Your task to perform on an android device: Search for Mexican restaurants on Maps Image 0: 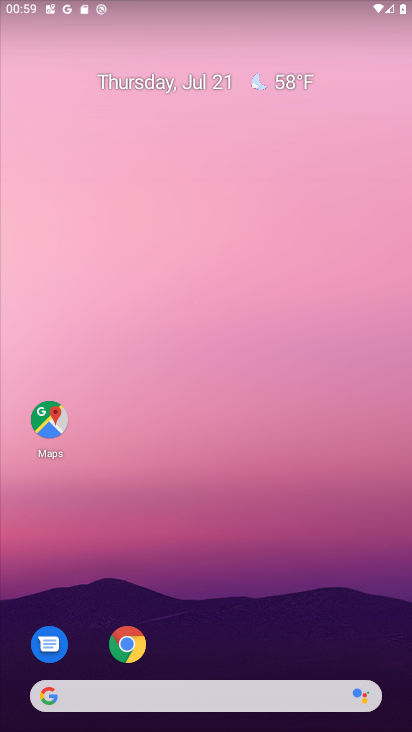
Step 0: click (62, 421)
Your task to perform on an android device: Search for Mexican restaurants on Maps Image 1: 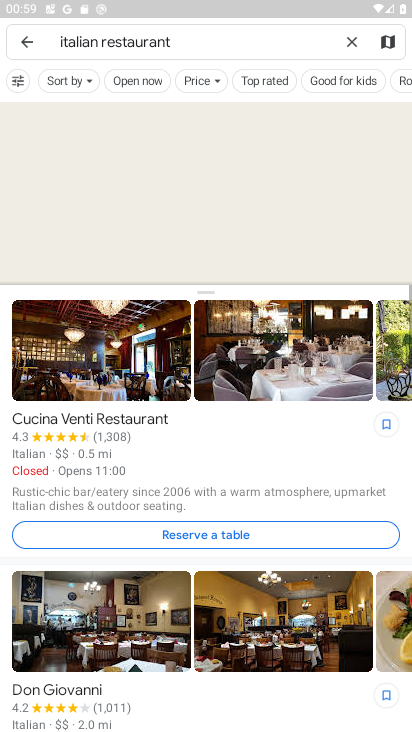
Step 1: click (350, 43)
Your task to perform on an android device: Search for Mexican restaurants on Maps Image 2: 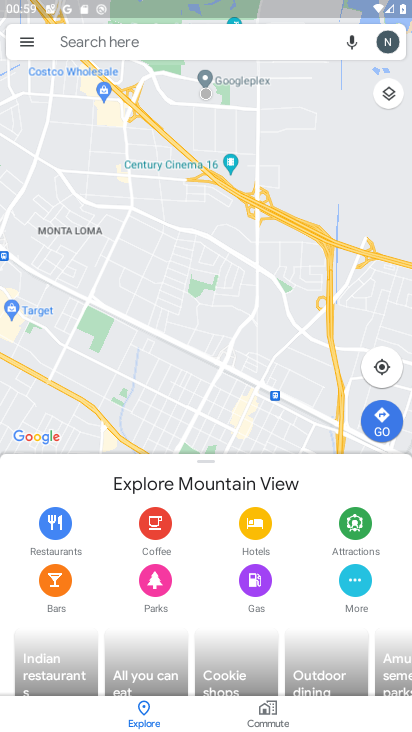
Step 2: click (258, 35)
Your task to perform on an android device: Search for Mexican restaurants on Maps Image 3: 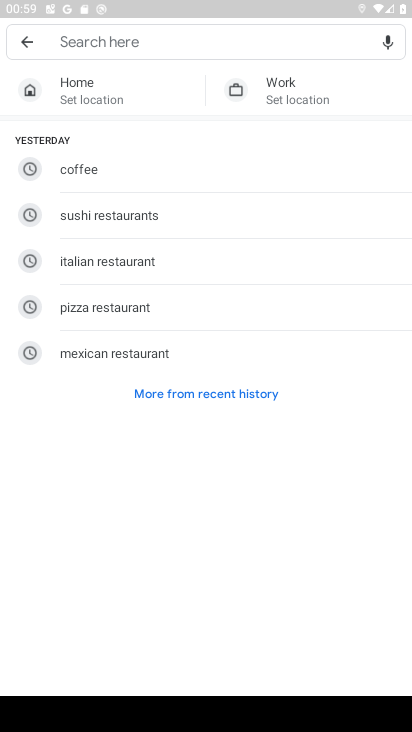
Step 3: click (142, 351)
Your task to perform on an android device: Search for Mexican restaurants on Maps Image 4: 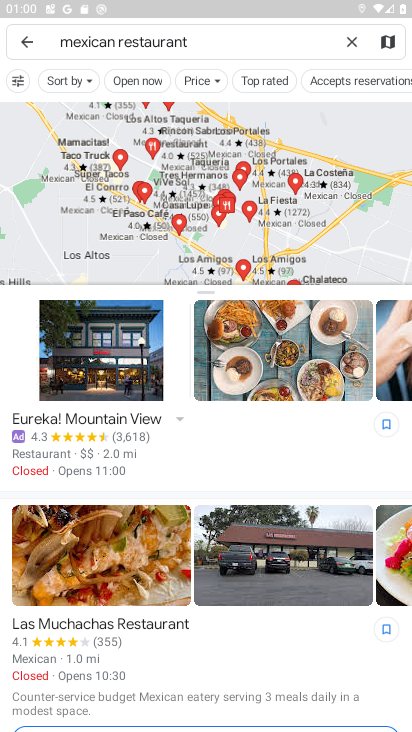
Step 4: task complete